Your task to perform on an android device: find which apps use the phone's location Image 0: 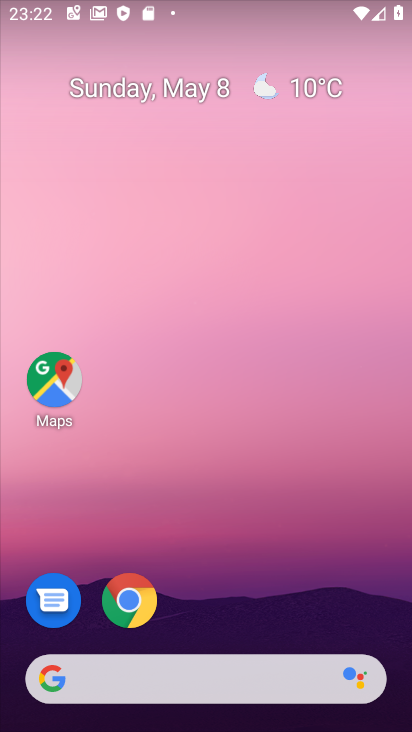
Step 0: drag from (188, 625) to (282, 30)
Your task to perform on an android device: find which apps use the phone's location Image 1: 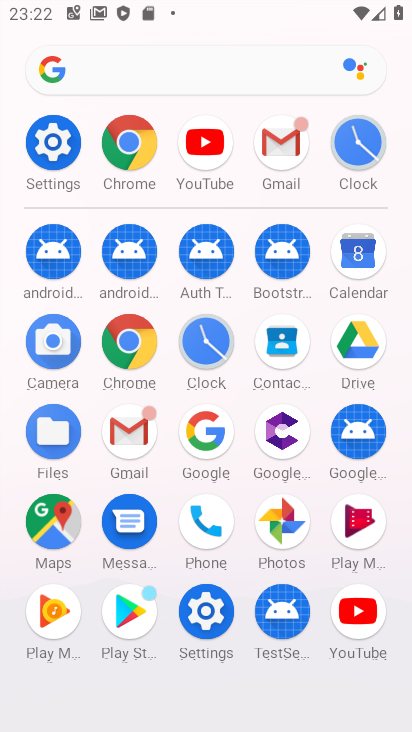
Step 1: click (212, 619)
Your task to perform on an android device: find which apps use the phone's location Image 2: 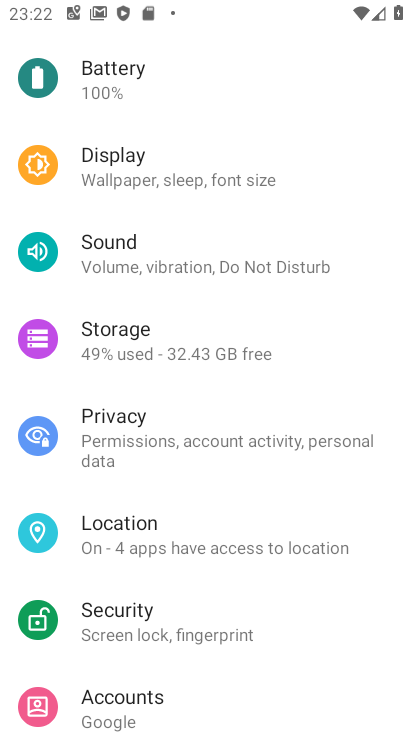
Step 2: click (223, 543)
Your task to perform on an android device: find which apps use the phone's location Image 3: 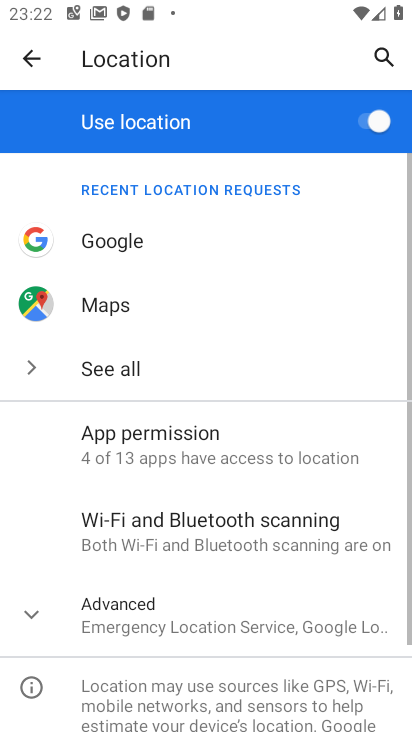
Step 3: click (114, 359)
Your task to perform on an android device: find which apps use the phone's location Image 4: 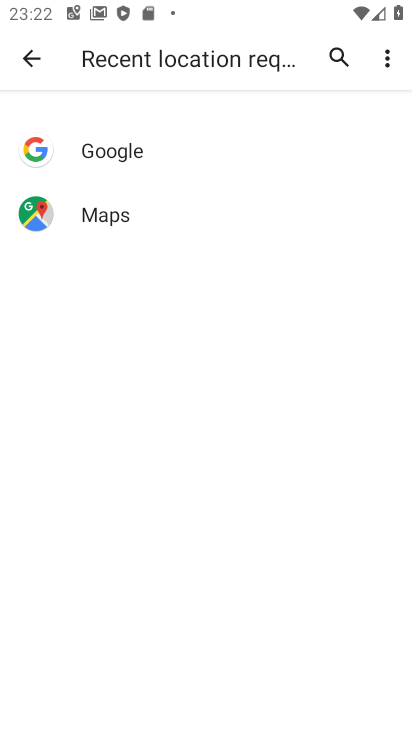
Step 4: task complete